Your task to perform on an android device: uninstall "Google Pay: Save, Pay, Manage" Image 0: 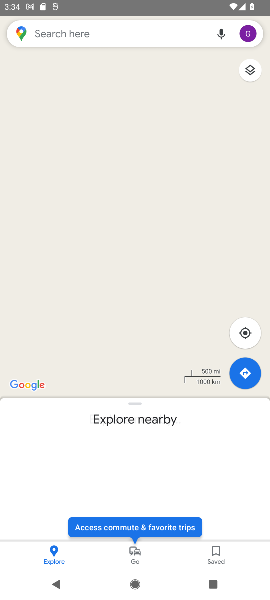
Step 0: press home button
Your task to perform on an android device: uninstall "Google Pay: Save, Pay, Manage" Image 1: 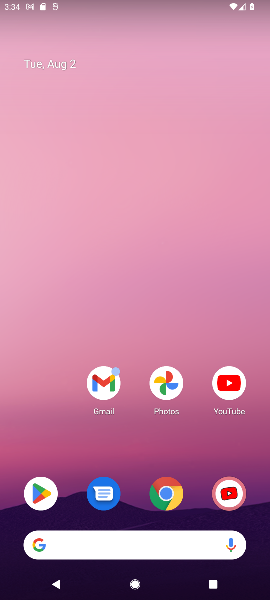
Step 1: click (37, 499)
Your task to perform on an android device: uninstall "Google Pay: Save, Pay, Manage" Image 2: 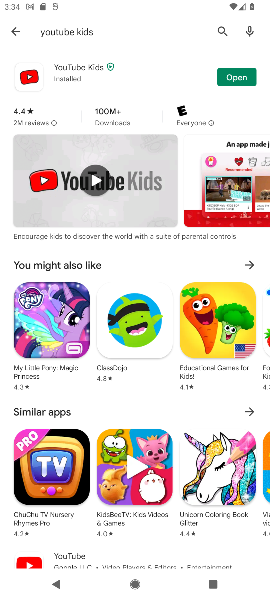
Step 2: click (223, 30)
Your task to perform on an android device: uninstall "Google Pay: Save, Pay, Manage" Image 3: 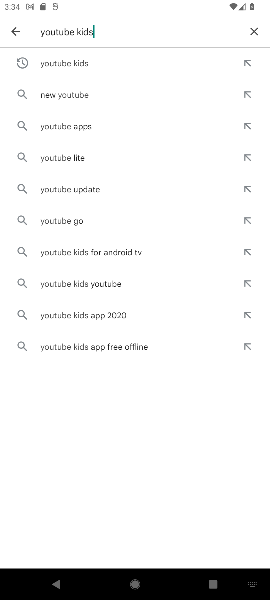
Step 3: click (256, 25)
Your task to perform on an android device: uninstall "Google Pay: Save, Pay, Manage" Image 4: 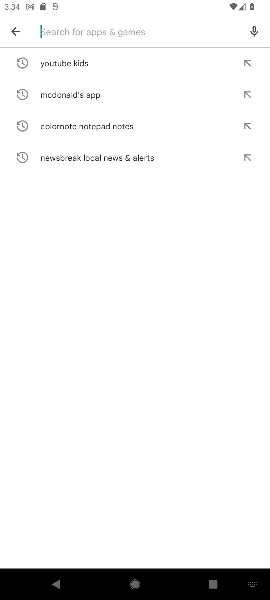
Step 4: click (107, 34)
Your task to perform on an android device: uninstall "Google Pay: Save, Pay, Manage" Image 5: 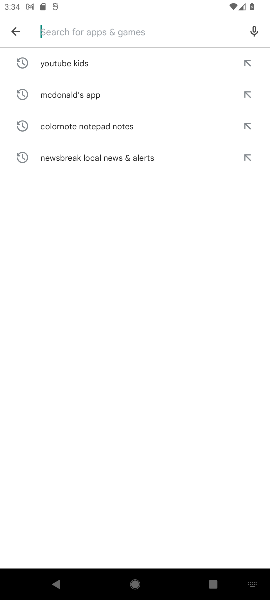
Step 5: type "google pay"
Your task to perform on an android device: uninstall "Google Pay: Save, Pay, Manage" Image 6: 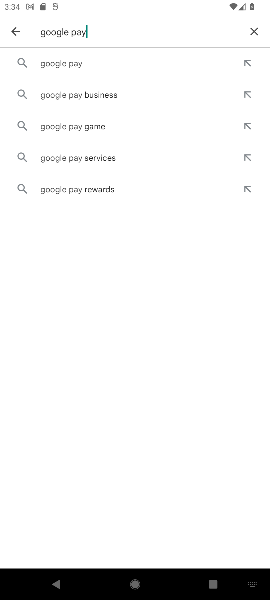
Step 6: click (63, 60)
Your task to perform on an android device: uninstall "Google Pay: Save, Pay, Manage" Image 7: 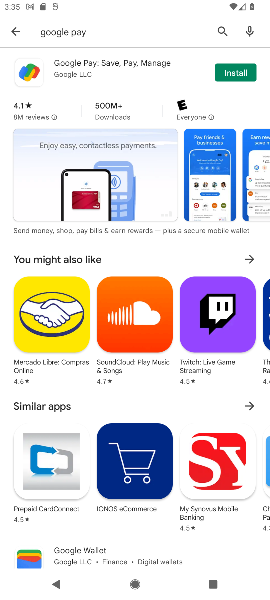
Step 7: task complete